Your task to perform on an android device: Go to Reddit.com Image 0: 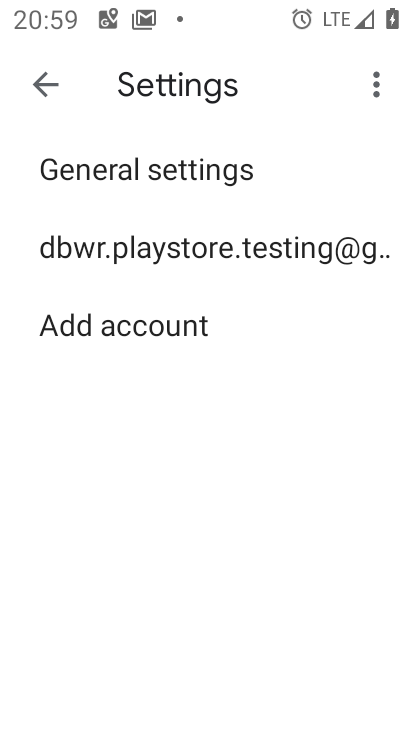
Step 0: press home button
Your task to perform on an android device: Go to Reddit.com Image 1: 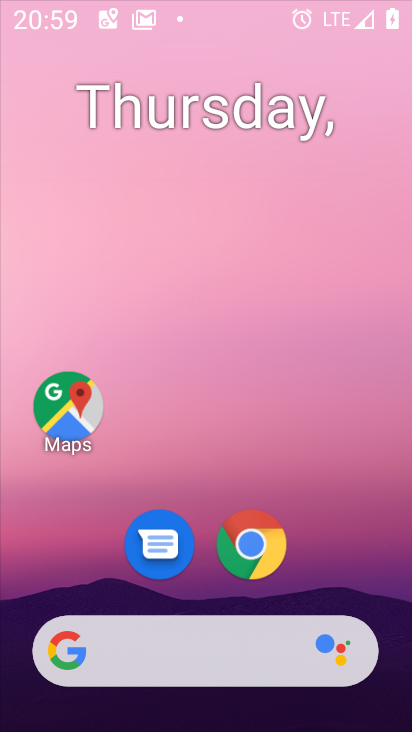
Step 1: press home button
Your task to perform on an android device: Go to Reddit.com Image 2: 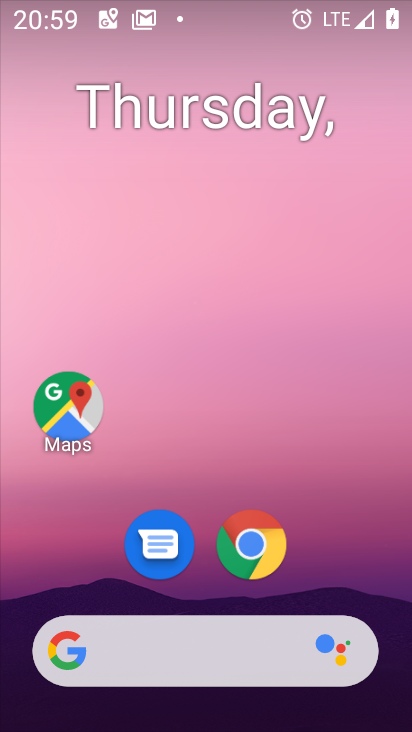
Step 2: drag from (213, 590) to (176, 175)
Your task to perform on an android device: Go to Reddit.com Image 3: 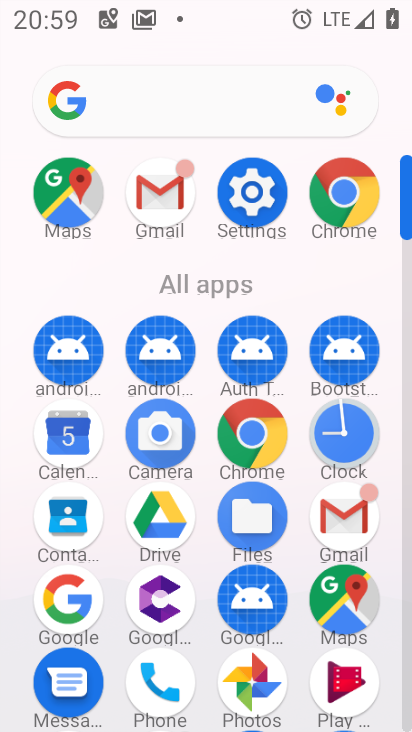
Step 3: click (337, 196)
Your task to perform on an android device: Go to Reddit.com Image 4: 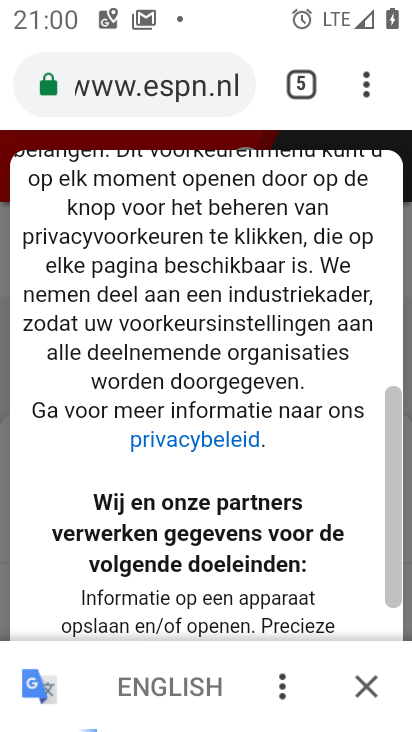
Step 4: click (307, 101)
Your task to perform on an android device: Go to Reddit.com Image 5: 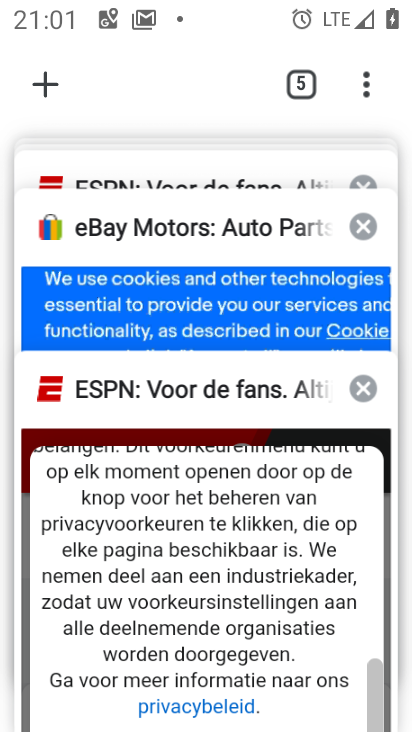
Step 5: click (34, 93)
Your task to perform on an android device: Go to Reddit.com Image 6: 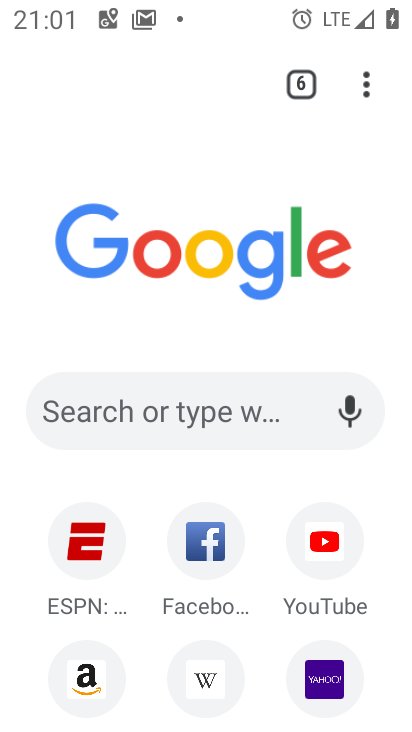
Step 6: click (166, 400)
Your task to perform on an android device: Go to Reddit.com Image 7: 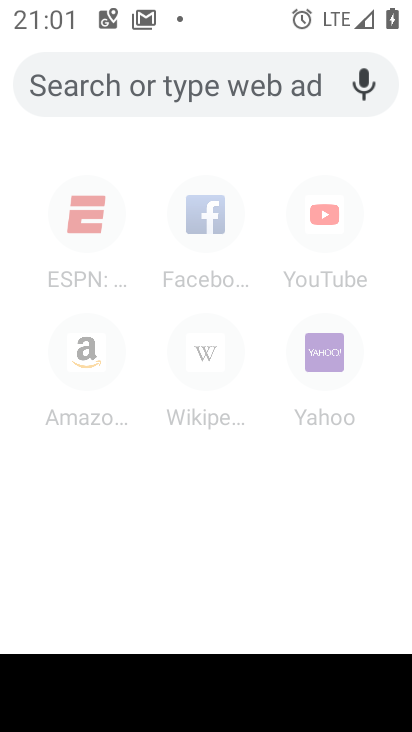
Step 7: type "reddit"
Your task to perform on an android device: Go to Reddit.com Image 8: 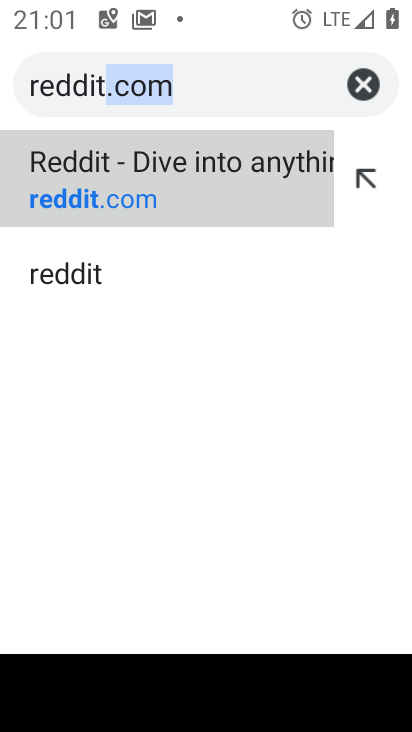
Step 8: type ""
Your task to perform on an android device: Go to Reddit.com Image 9: 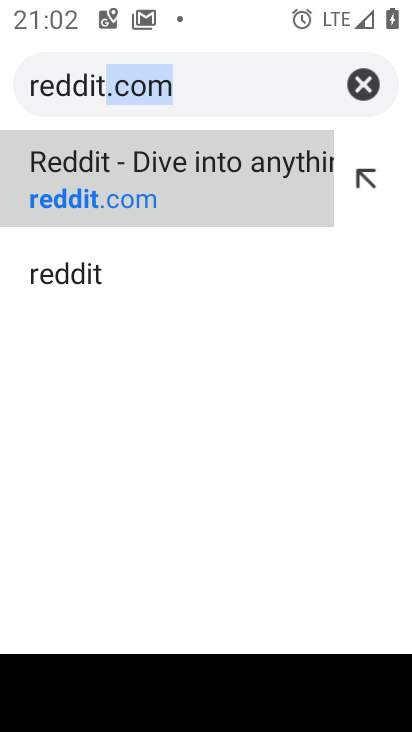
Step 9: click (122, 265)
Your task to perform on an android device: Go to Reddit.com Image 10: 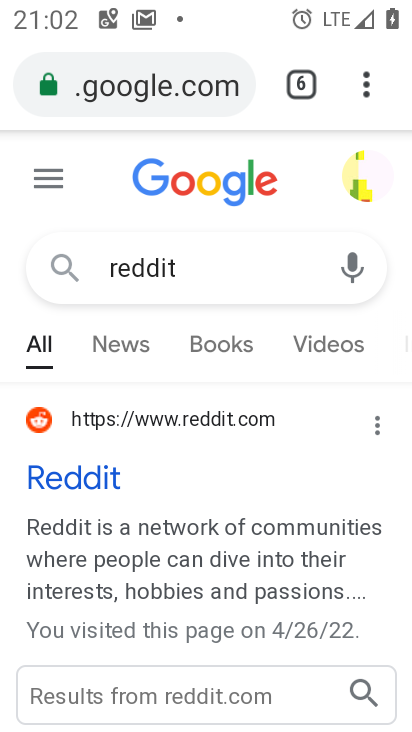
Step 10: click (77, 473)
Your task to perform on an android device: Go to Reddit.com Image 11: 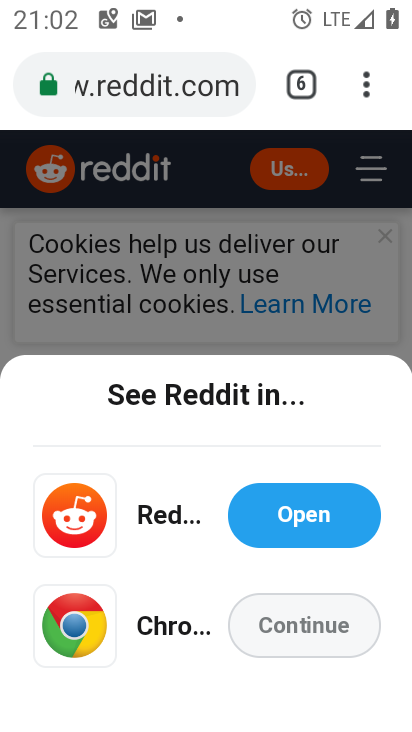
Step 11: task complete